Your task to perform on an android device: delete the emails in spam in the gmail app Image 0: 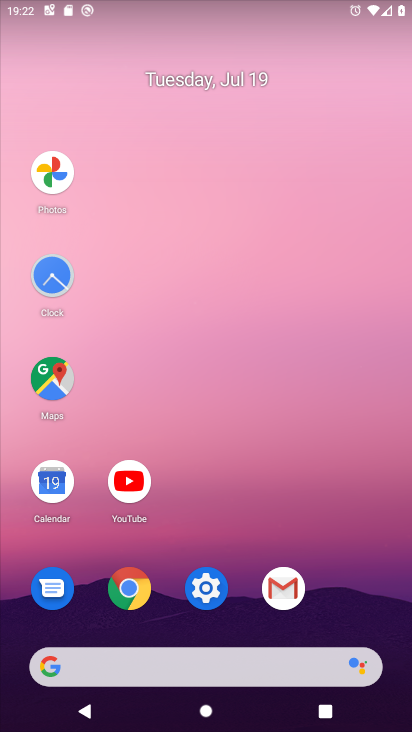
Step 0: click (282, 595)
Your task to perform on an android device: delete the emails in spam in the gmail app Image 1: 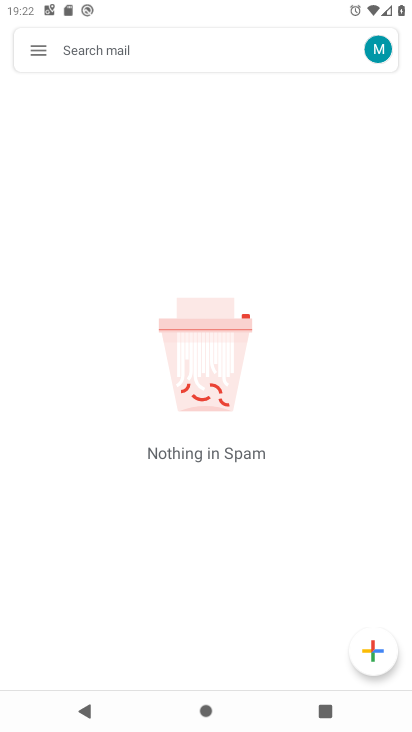
Step 1: task complete